Your task to perform on an android device: Open settings Image 0: 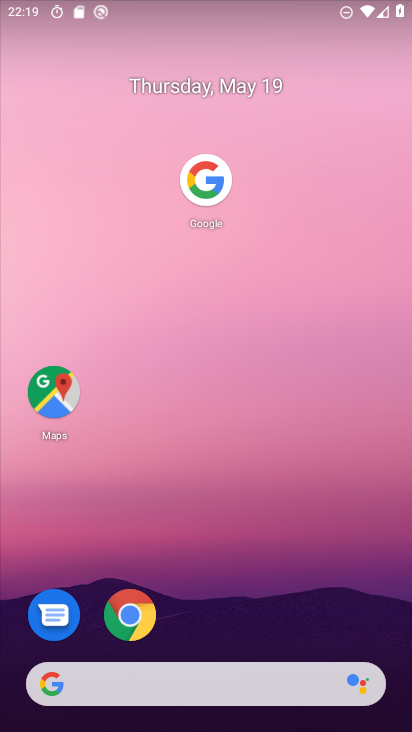
Step 0: drag from (216, 594) to (212, 101)
Your task to perform on an android device: Open settings Image 1: 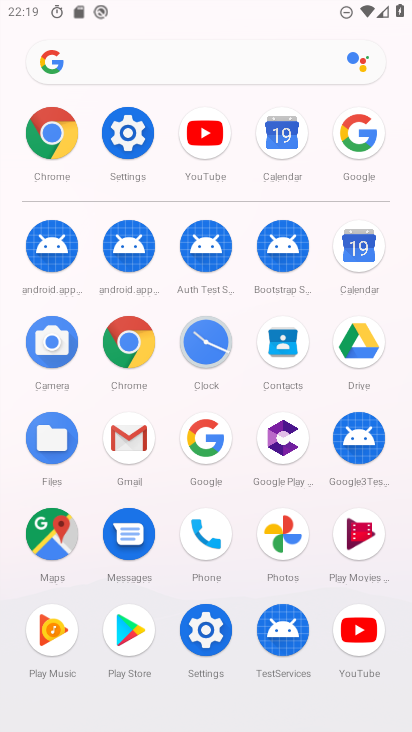
Step 1: click (129, 120)
Your task to perform on an android device: Open settings Image 2: 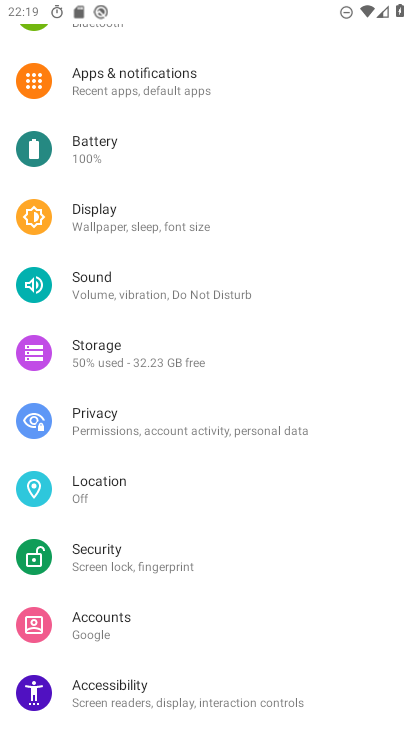
Step 2: task complete